Your task to perform on an android device: Search for vegetarian restaurants on Maps Image 0: 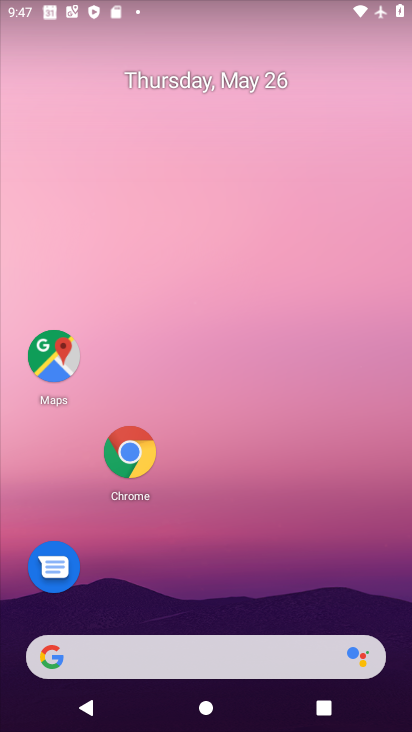
Step 0: click (56, 356)
Your task to perform on an android device: Search for vegetarian restaurants on Maps Image 1: 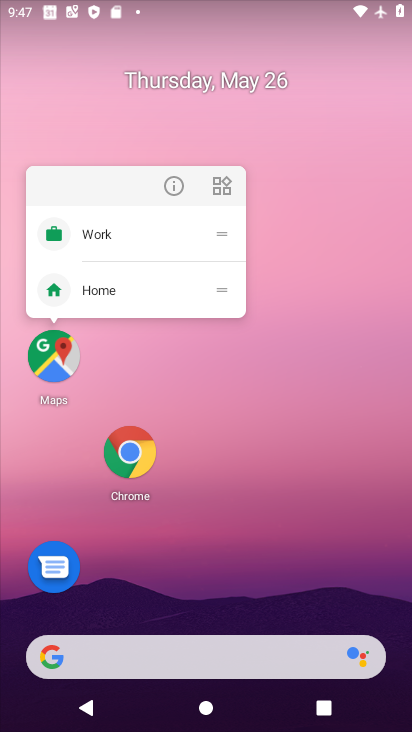
Step 1: click (62, 366)
Your task to perform on an android device: Search for vegetarian restaurants on Maps Image 2: 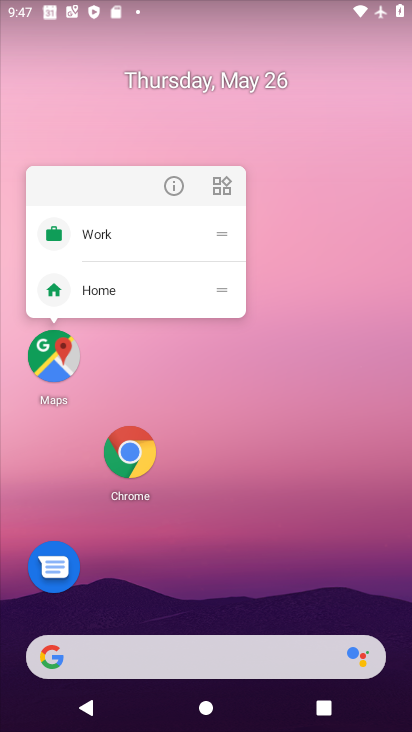
Step 2: click (49, 372)
Your task to perform on an android device: Search for vegetarian restaurants on Maps Image 3: 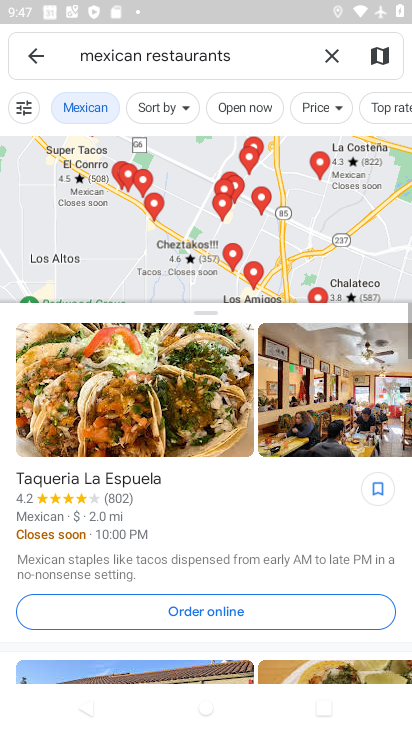
Step 3: click (326, 58)
Your task to perform on an android device: Search for vegetarian restaurants on Maps Image 4: 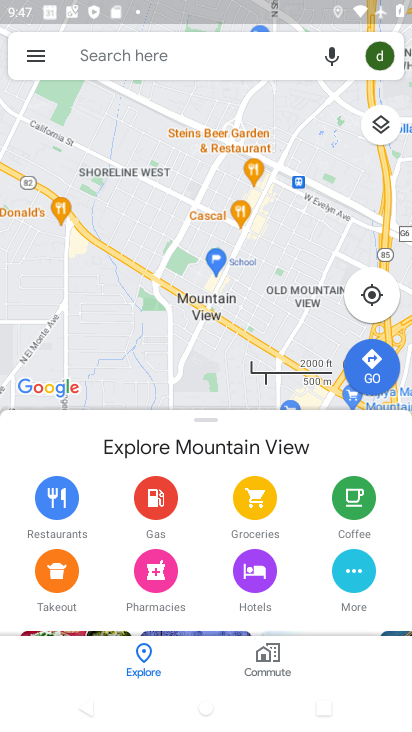
Step 4: click (192, 60)
Your task to perform on an android device: Search for vegetarian restaurants on Maps Image 5: 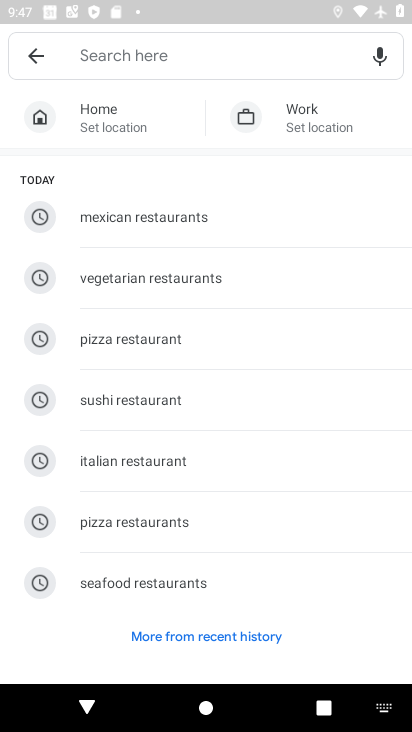
Step 5: click (137, 287)
Your task to perform on an android device: Search for vegetarian restaurants on Maps Image 6: 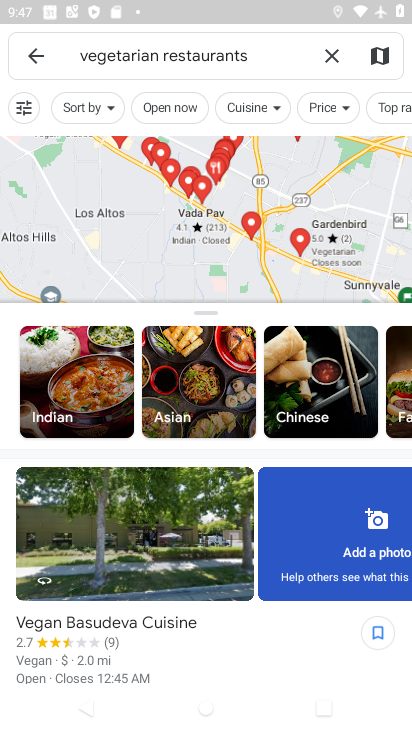
Step 6: task complete